Your task to perform on an android device: check battery use Image 0: 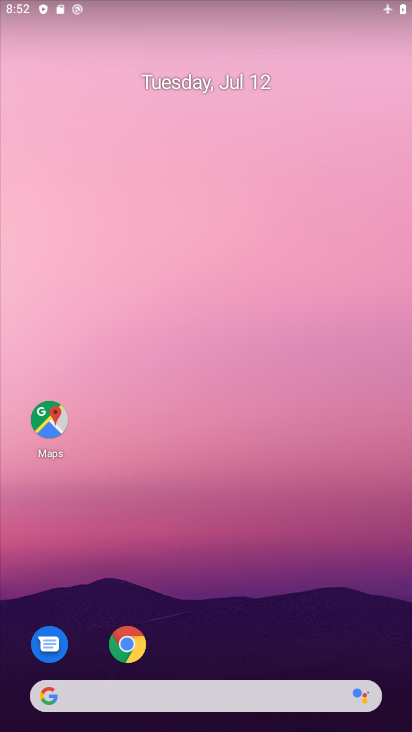
Step 0: drag from (194, 656) to (218, 177)
Your task to perform on an android device: check battery use Image 1: 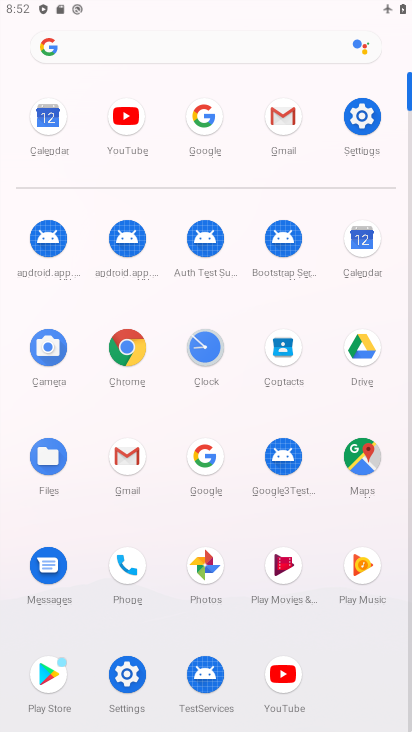
Step 1: click (352, 124)
Your task to perform on an android device: check battery use Image 2: 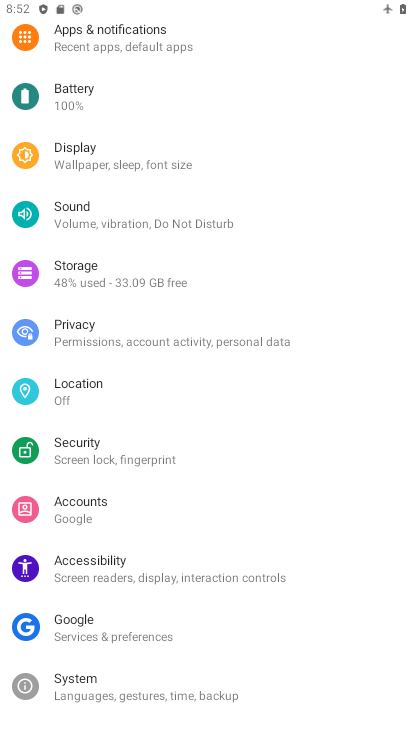
Step 2: click (123, 98)
Your task to perform on an android device: check battery use Image 3: 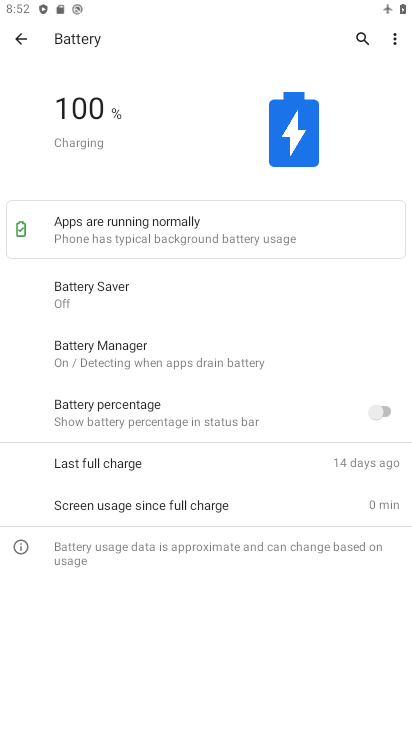
Step 3: click (393, 42)
Your task to perform on an android device: check battery use Image 4: 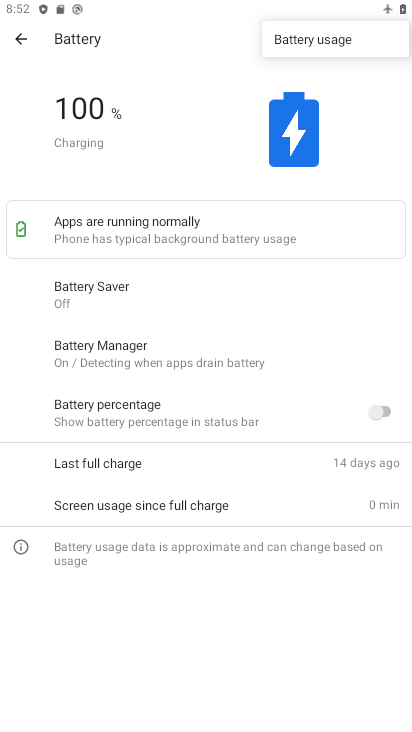
Step 4: click (331, 45)
Your task to perform on an android device: check battery use Image 5: 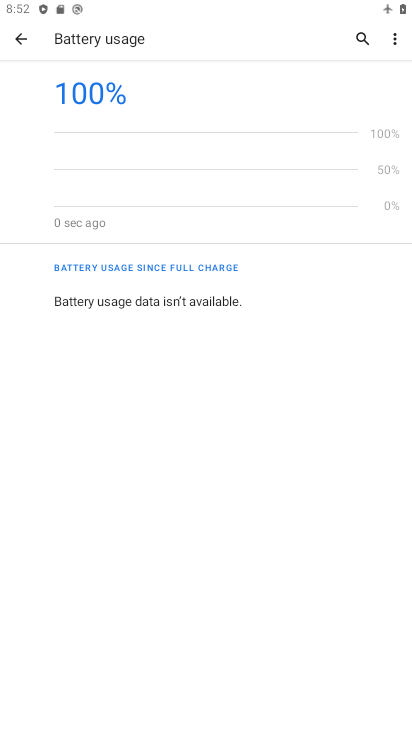
Step 5: task complete